Your task to perform on an android device: open chrome privacy settings Image 0: 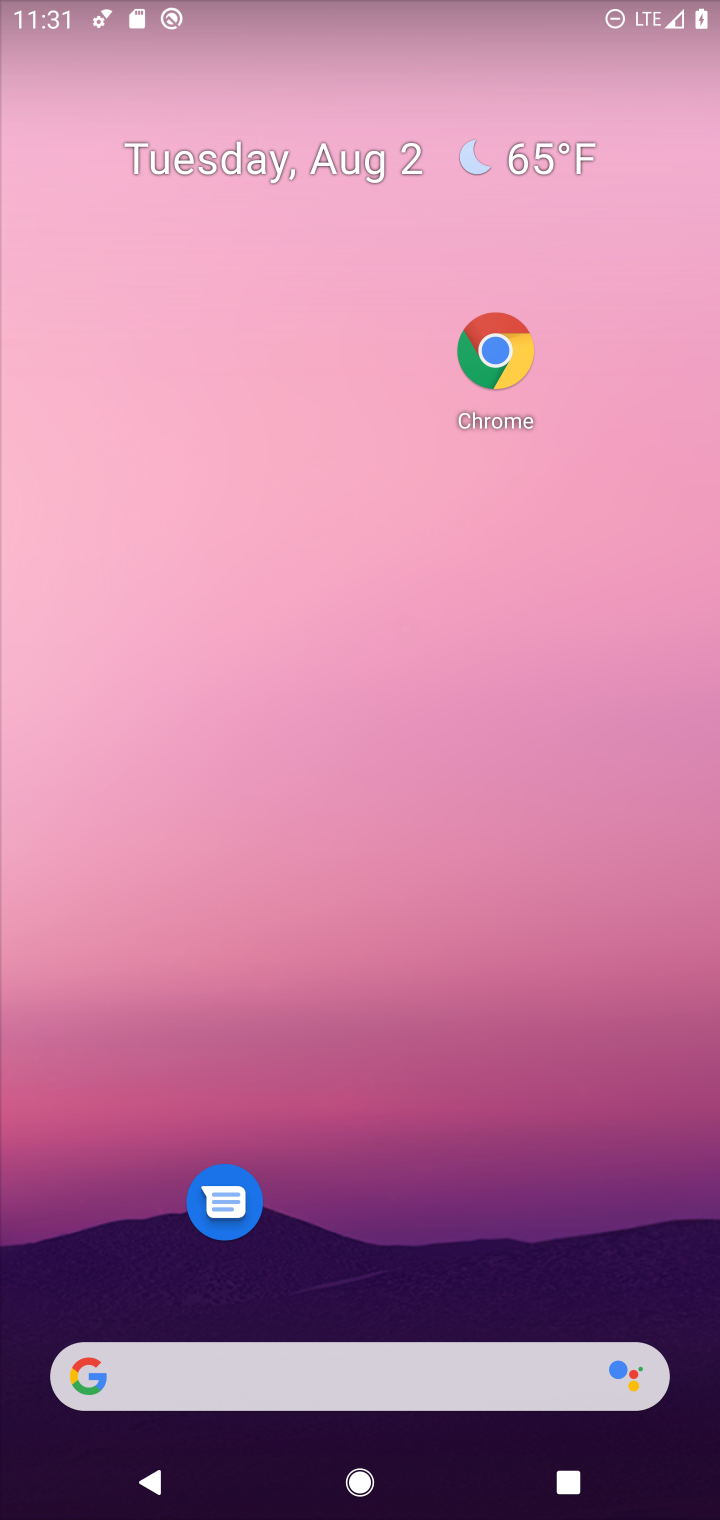
Step 0: click (497, 355)
Your task to perform on an android device: open chrome privacy settings Image 1: 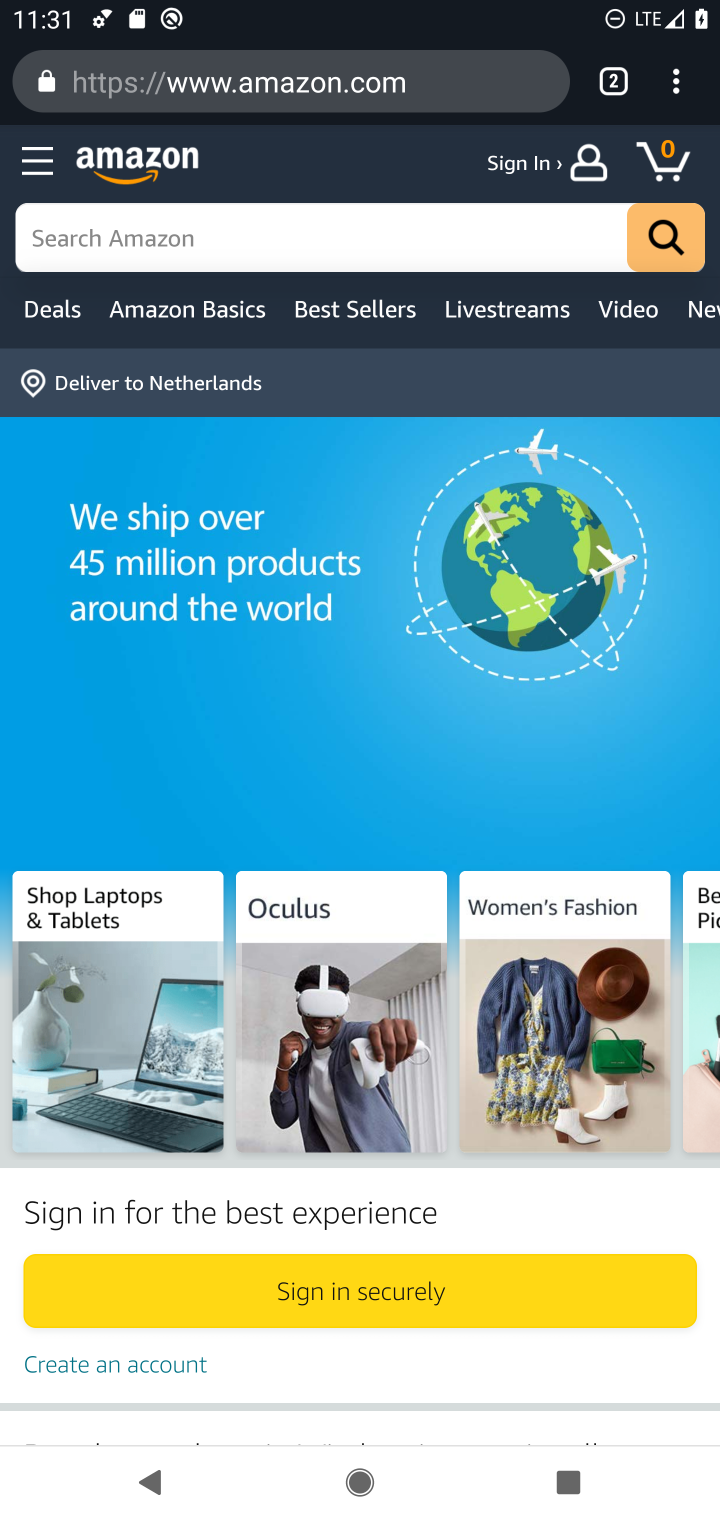
Step 1: drag from (676, 83) to (429, 990)
Your task to perform on an android device: open chrome privacy settings Image 2: 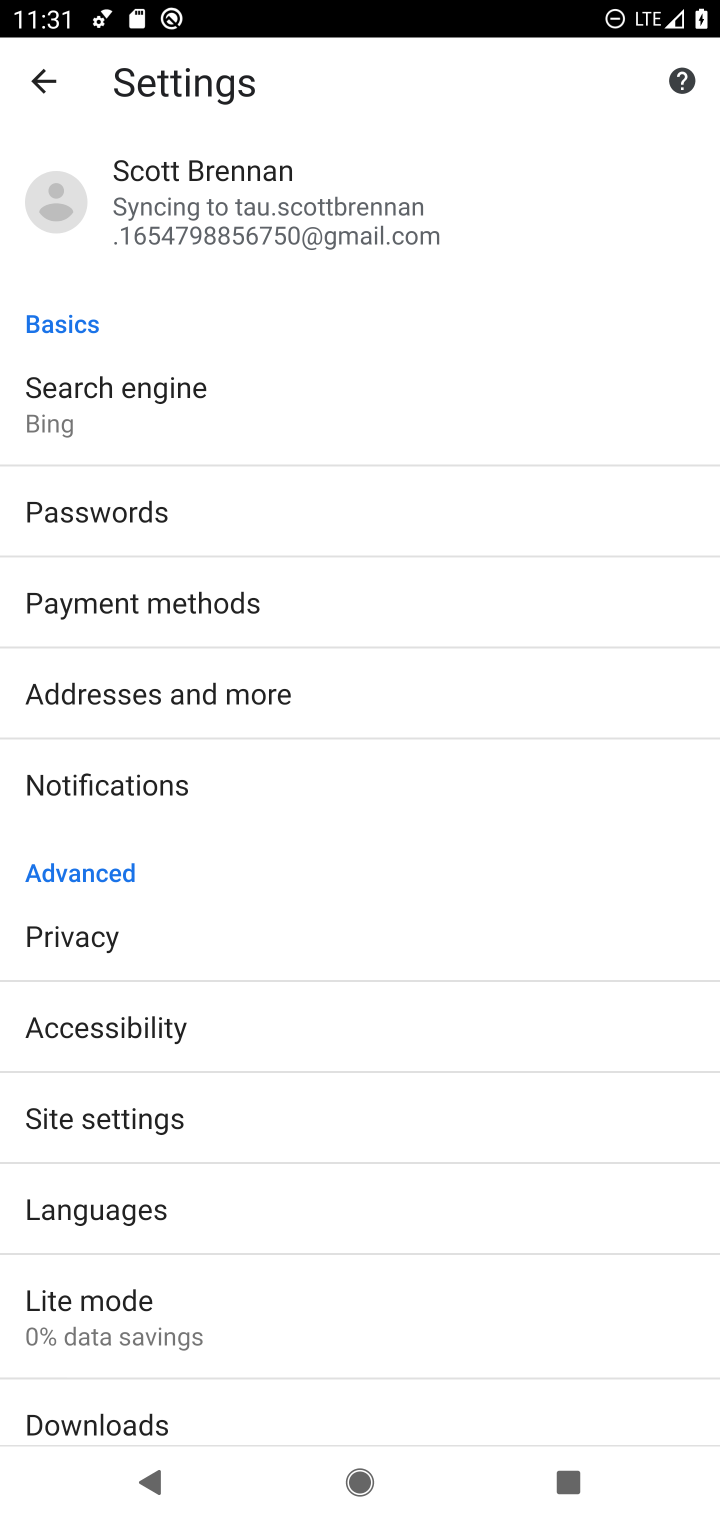
Step 2: click (125, 933)
Your task to perform on an android device: open chrome privacy settings Image 3: 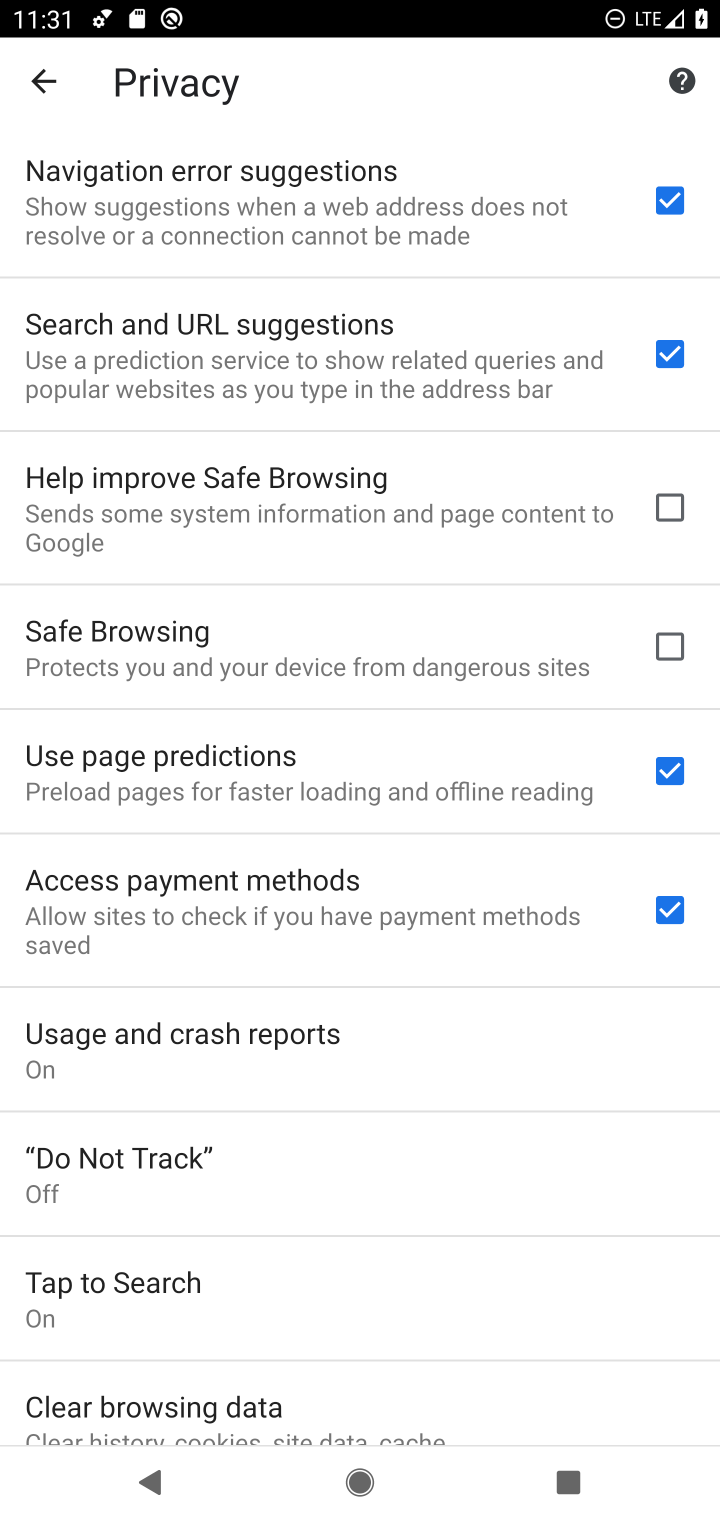
Step 3: task complete